Your task to perform on an android device: Play the last video I watched on Youtube Image 0: 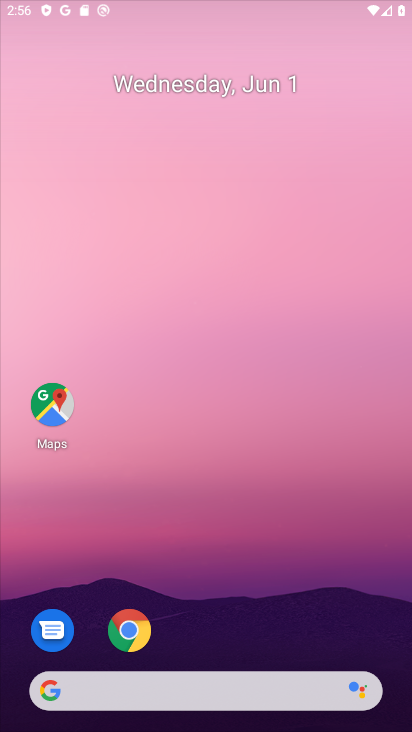
Step 0: drag from (268, 421) to (258, 112)
Your task to perform on an android device: Play the last video I watched on Youtube Image 1: 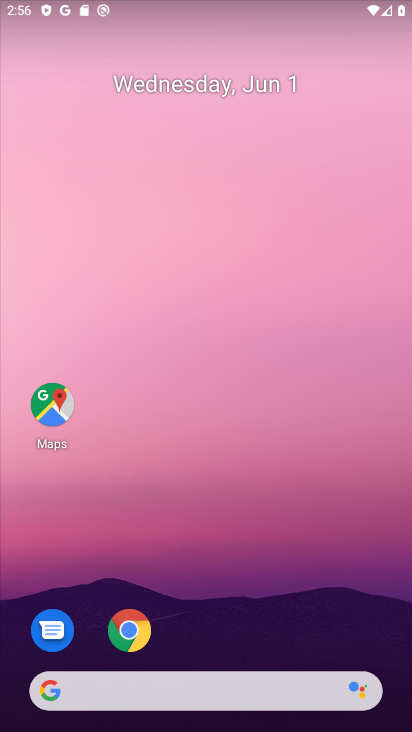
Step 1: drag from (270, 582) to (323, 114)
Your task to perform on an android device: Play the last video I watched on Youtube Image 2: 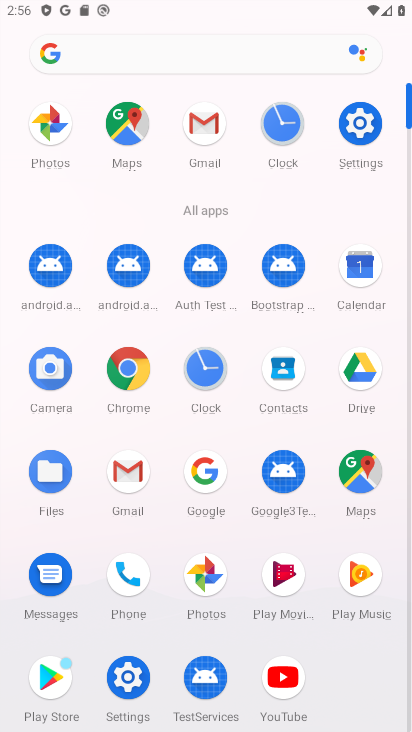
Step 2: click (275, 685)
Your task to perform on an android device: Play the last video I watched on Youtube Image 3: 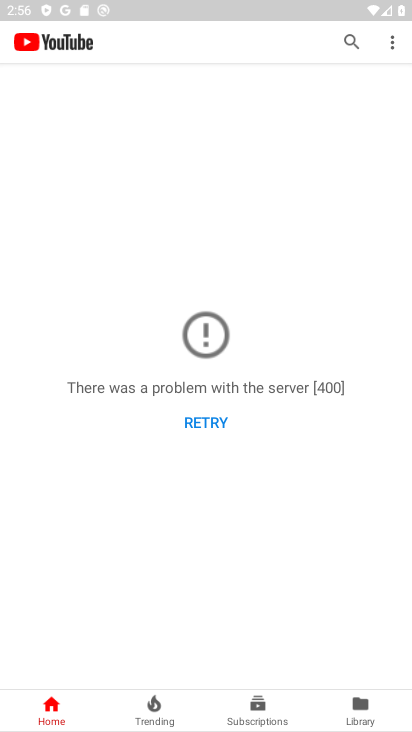
Step 3: click (369, 702)
Your task to perform on an android device: Play the last video I watched on Youtube Image 4: 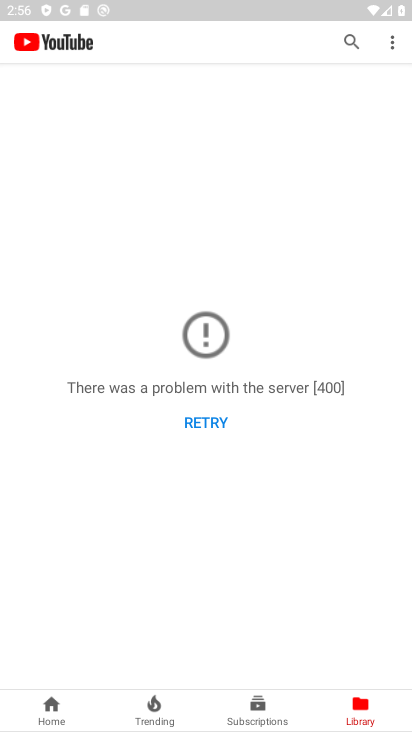
Step 4: task complete